Your task to perform on an android device: Check the news Image 0: 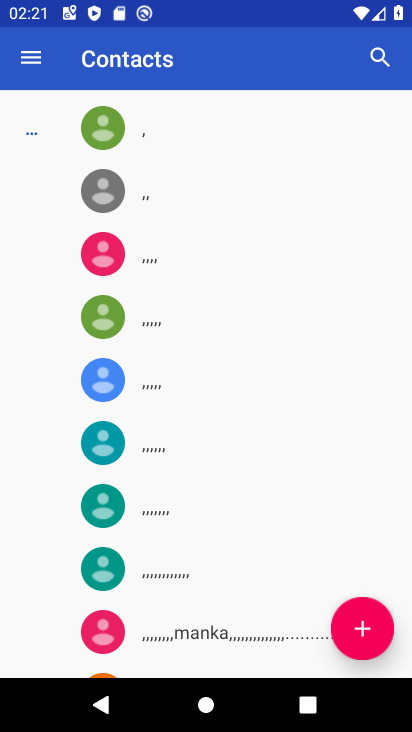
Step 0: drag from (200, 608) to (239, 326)
Your task to perform on an android device: Check the news Image 1: 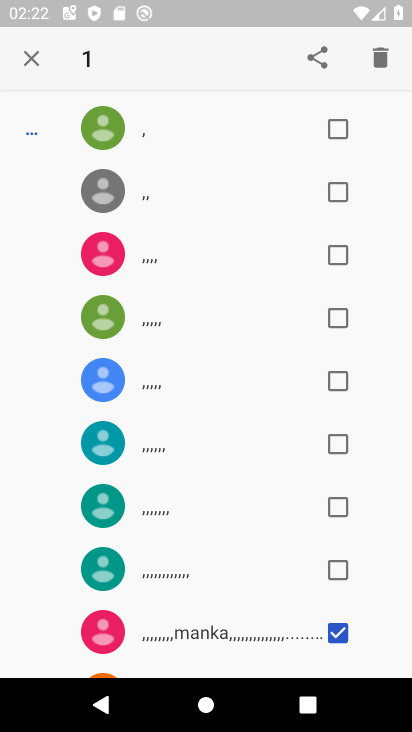
Step 1: drag from (266, 497) to (325, 238)
Your task to perform on an android device: Check the news Image 2: 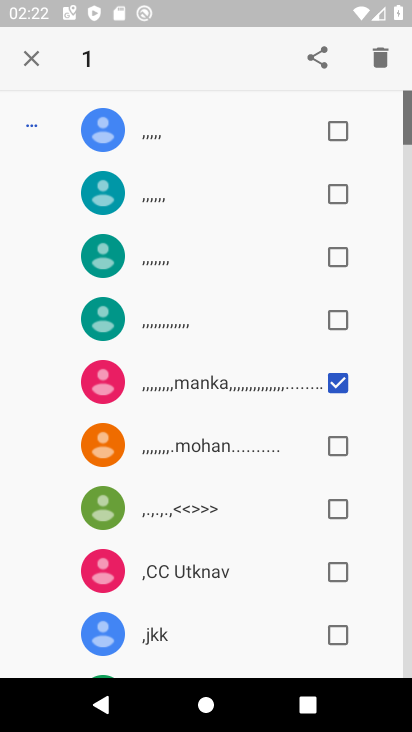
Step 2: drag from (342, 171) to (408, 217)
Your task to perform on an android device: Check the news Image 3: 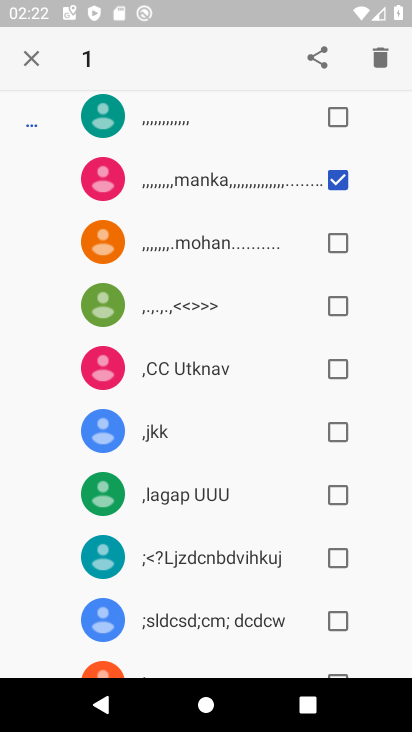
Step 3: press home button
Your task to perform on an android device: Check the news Image 4: 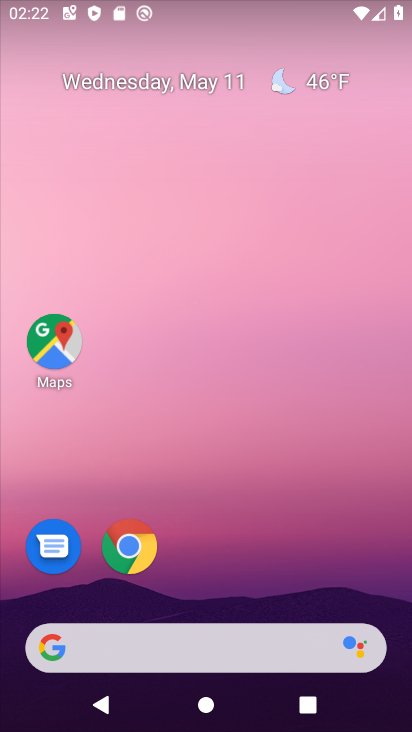
Step 4: drag from (163, 627) to (226, 194)
Your task to perform on an android device: Check the news Image 5: 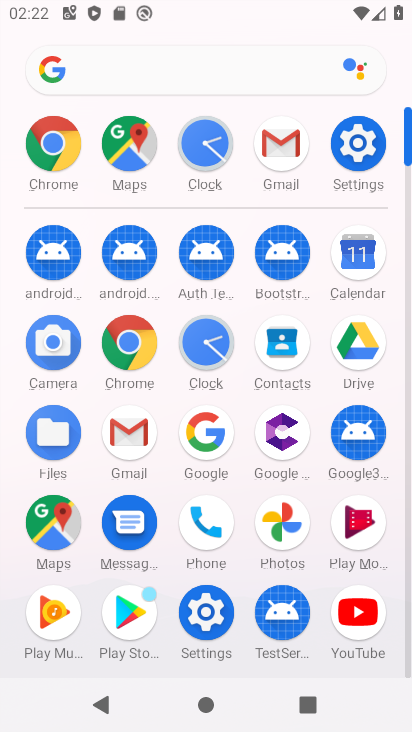
Step 5: click (226, 53)
Your task to perform on an android device: Check the news Image 6: 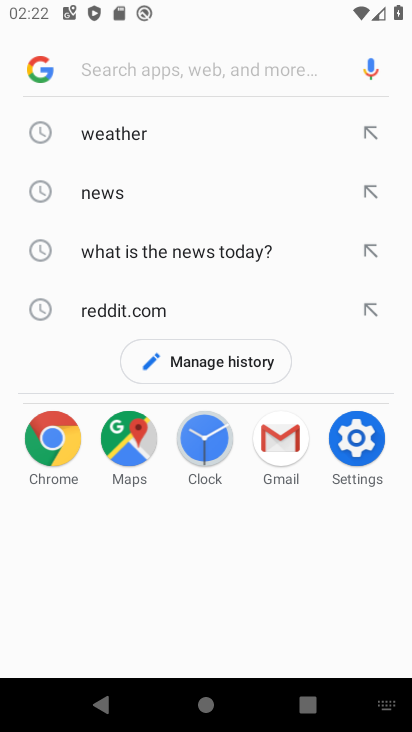
Step 6: click (143, 204)
Your task to perform on an android device: Check the news Image 7: 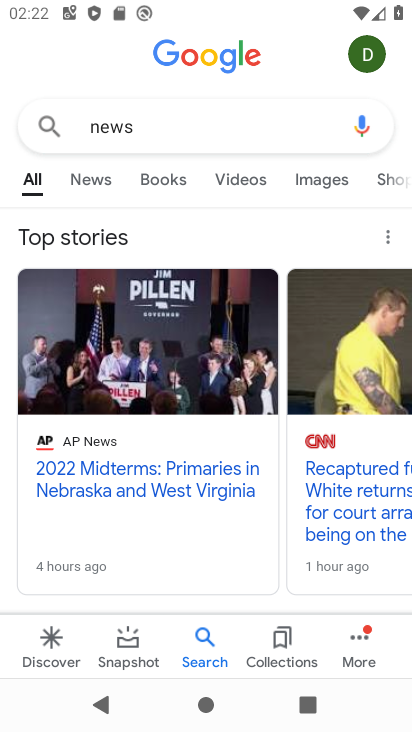
Step 7: task complete